Your task to perform on an android device: turn on javascript in the chrome app Image 0: 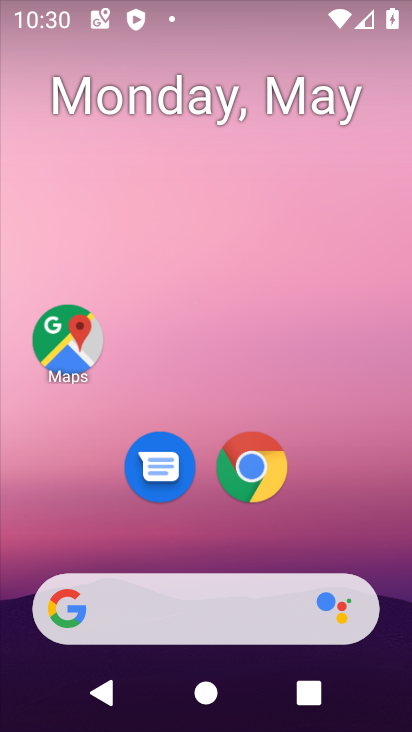
Step 0: click (246, 460)
Your task to perform on an android device: turn on javascript in the chrome app Image 1: 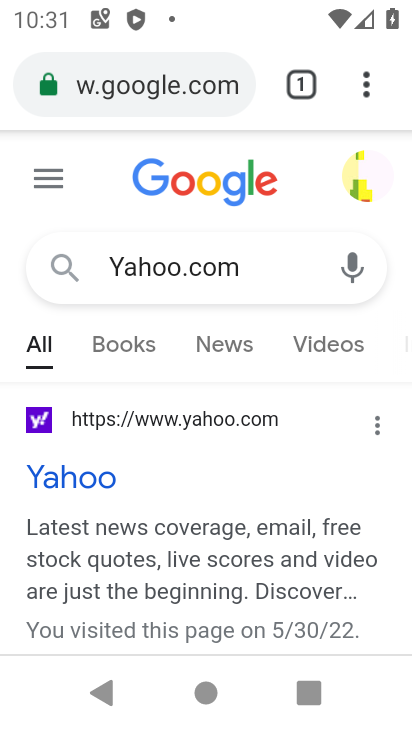
Step 1: click (365, 87)
Your task to perform on an android device: turn on javascript in the chrome app Image 2: 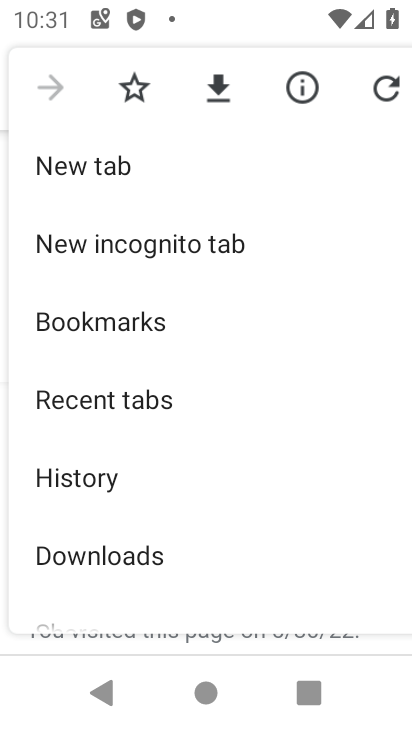
Step 2: drag from (272, 377) to (276, 185)
Your task to perform on an android device: turn on javascript in the chrome app Image 3: 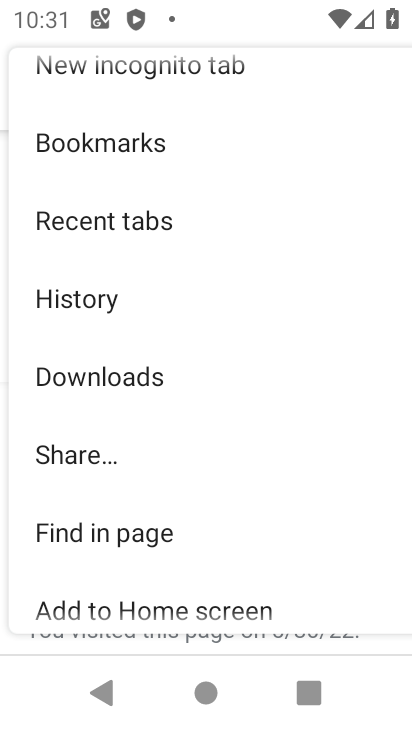
Step 3: drag from (282, 596) to (286, 213)
Your task to perform on an android device: turn on javascript in the chrome app Image 4: 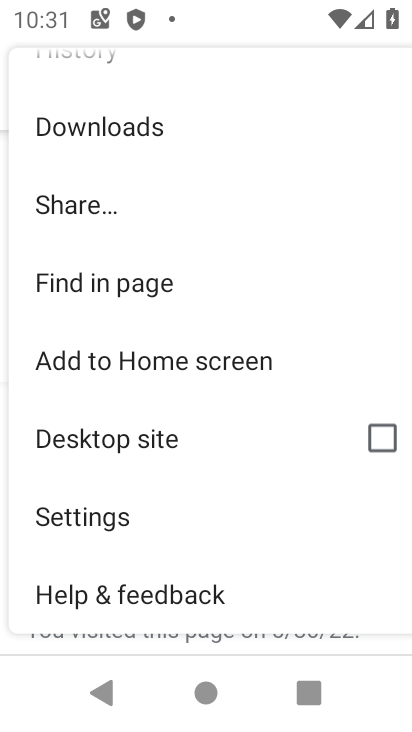
Step 4: drag from (303, 580) to (303, 251)
Your task to perform on an android device: turn on javascript in the chrome app Image 5: 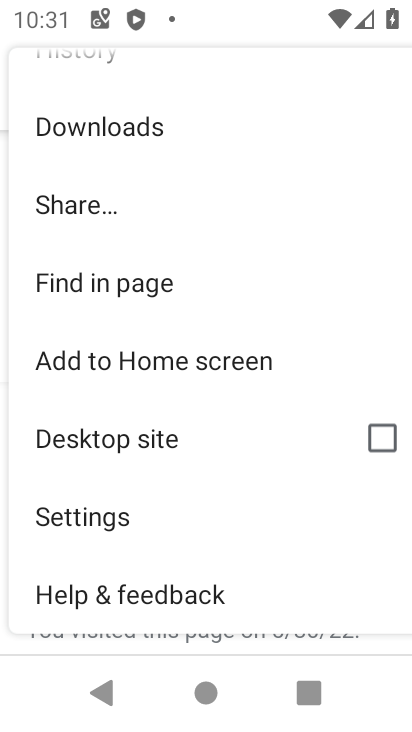
Step 5: click (285, 276)
Your task to perform on an android device: turn on javascript in the chrome app Image 6: 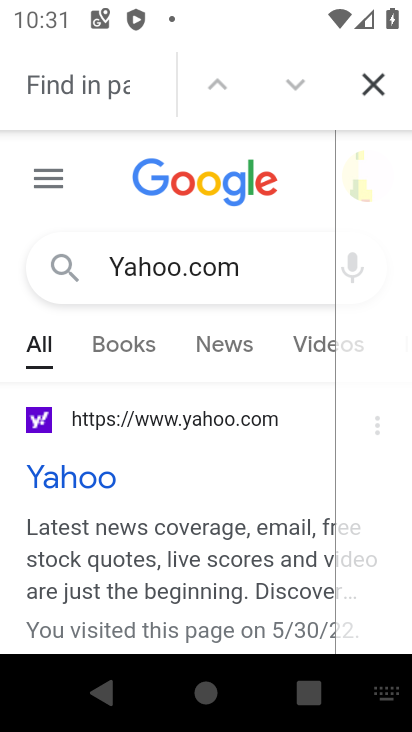
Step 6: click (56, 509)
Your task to perform on an android device: turn on javascript in the chrome app Image 7: 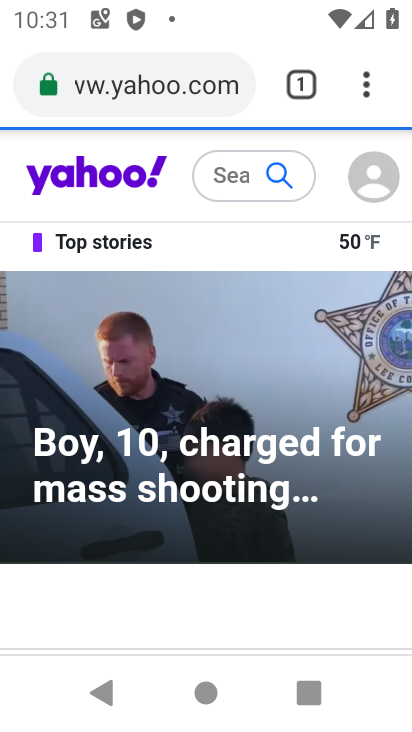
Step 7: click (361, 80)
Your task to perform on an android device: turn on javascript in the chrome app Image 8: 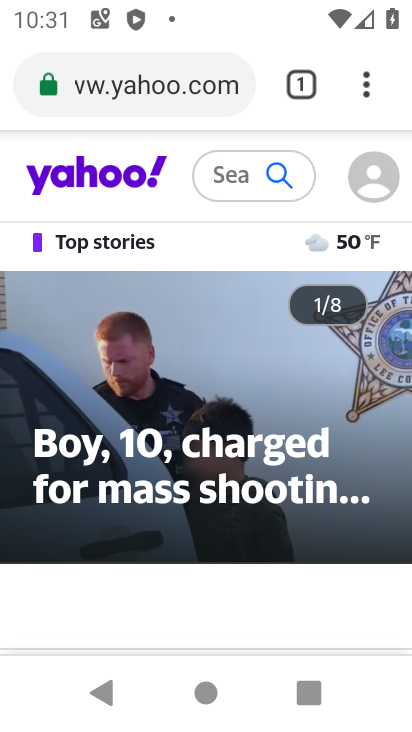
Step 8: click (367, 81)
Your task to perform on an android device: turn on javascript in the chrome app Image 9: 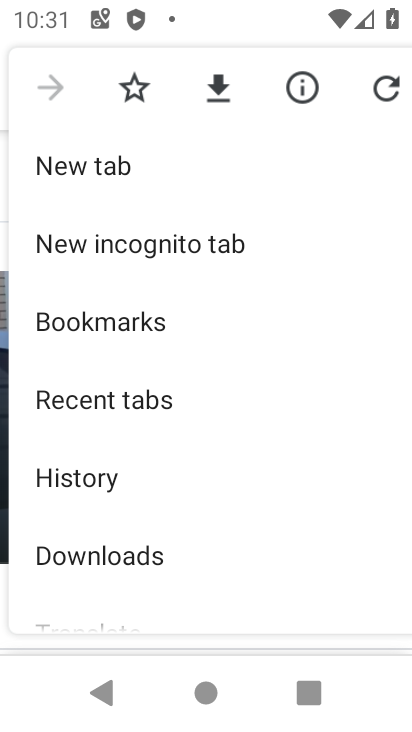
Step 9: drag from (303, 603) to (315, 221)
Your task to perform on an android device: turn on javascript in the chrome app Image 10: 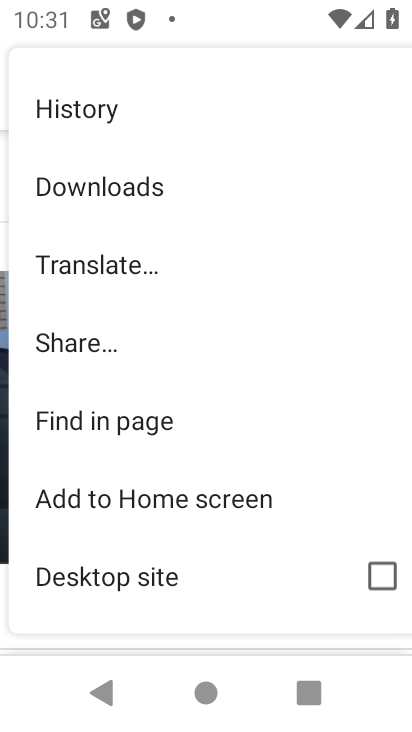
Step 10: drag from (296, 590) to (318, 190)
Your task to perform on an android device: turn on javascript in the chrome app Image 11: 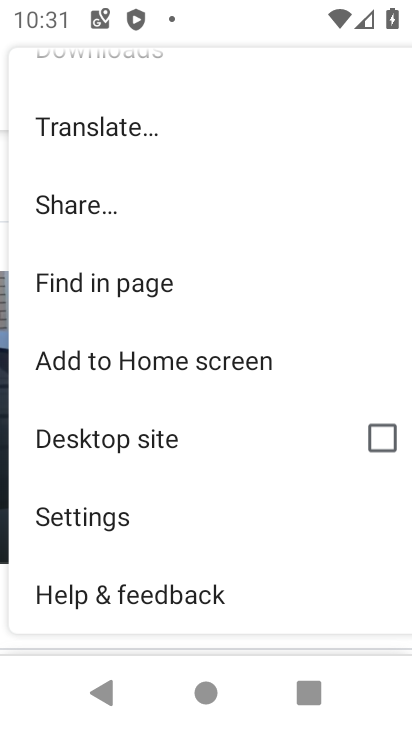
Step 11: click (83, 515)
Your task to perform on an android device: turn on javascript in the chrome app Image 12: 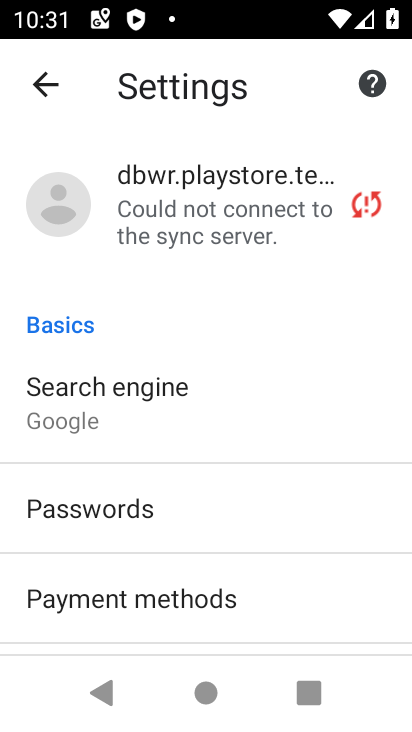
Step 12: drag from (276, 615) to (263, 262)
Your task to perform on an android device: turn on javascript in the chrome app Image 13: 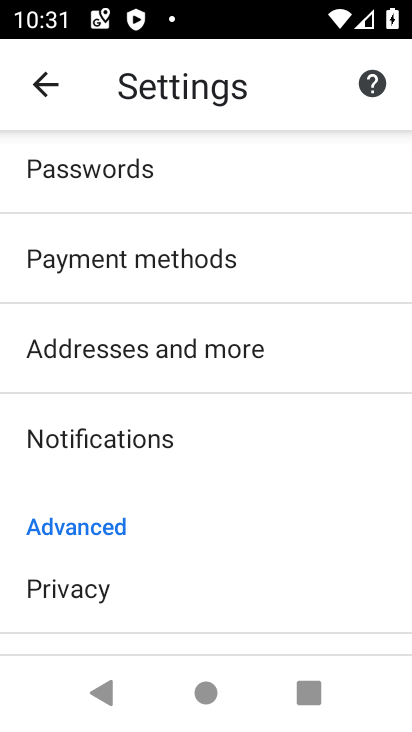
Step 13: click (299, 228)
Your task to perform on an android device: turn on javascript in the chrome app Image 14: 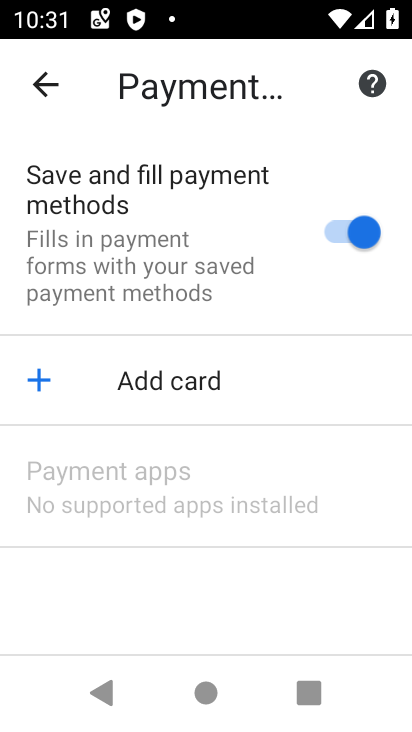
Step 14: drag from (277, 597) to (300, 262)
Your task to perform on an android device: turn on javascript in the chrome app Image 15: 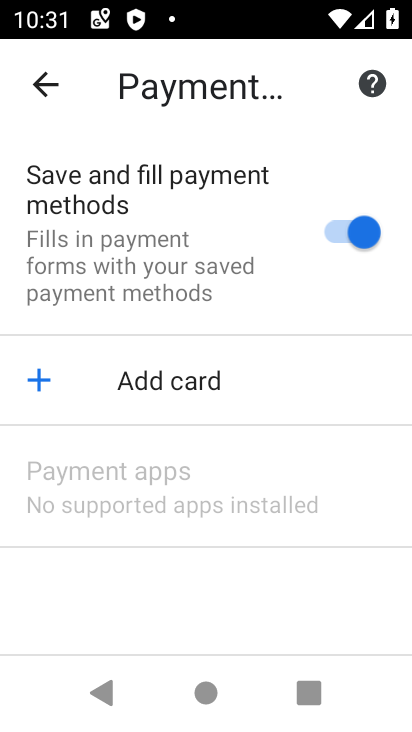
Step 15: click (34, 75)
Your task to perform on an android device: turn on javascript in the chrome app Image 16: 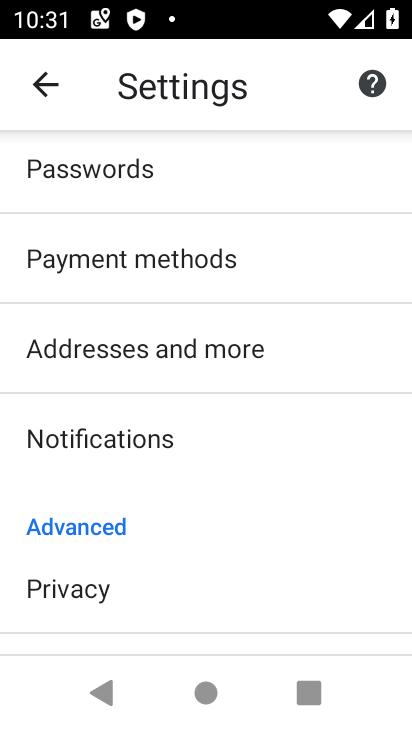
Step 16: click (307, 173)
Your task to perform on an android device: turn on javascript in the chrome app Image 17: 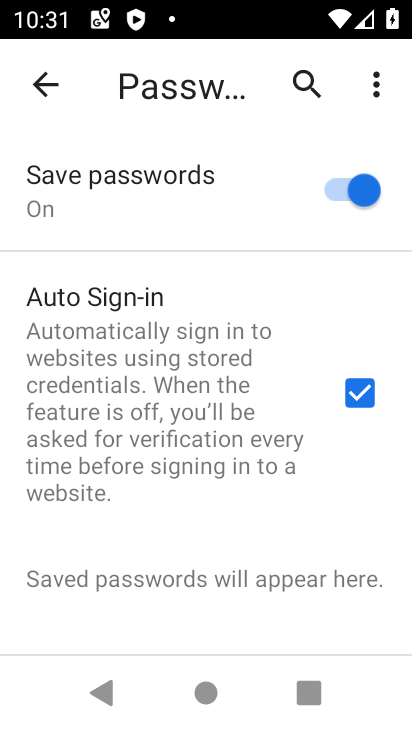
Step 17: click (48, 85)
Your task to perform on an android device: turn on javascript in the chrome app Image 18: 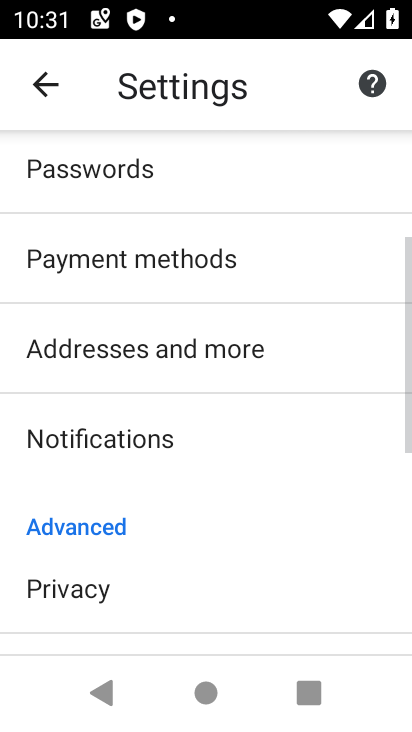
Step 18: drag from (284, 593) to (282, 193)
Your task to perform on an android device: turn on javascript in the chrome app Image 19: 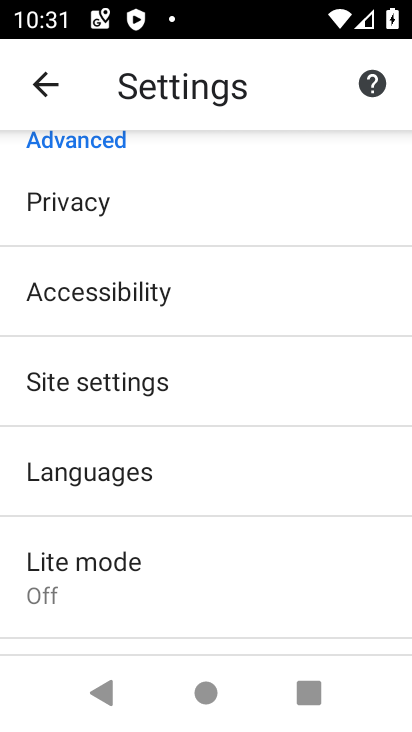
Step 19: drag from (267, 570) to (295, 193)
Your task to perform on an android device: turn on javascript in the chrome app Image 20: 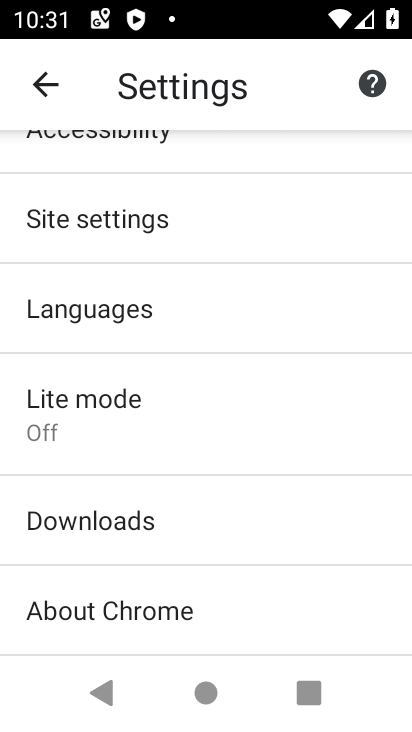
Step 20: drag from (261, 615) to (287, 317)
Your task to perform on an android device: turn on javascript in the chrome app Image 21: 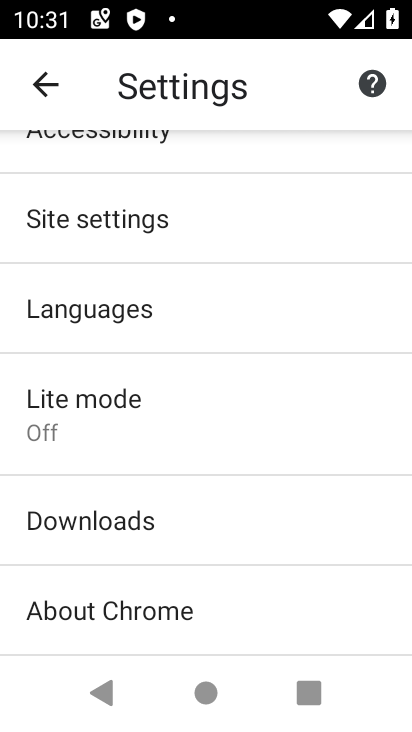
Step 21: click (103, 217)
Your task to perform on an android device: turn on javascript in the chrome app Image 22: 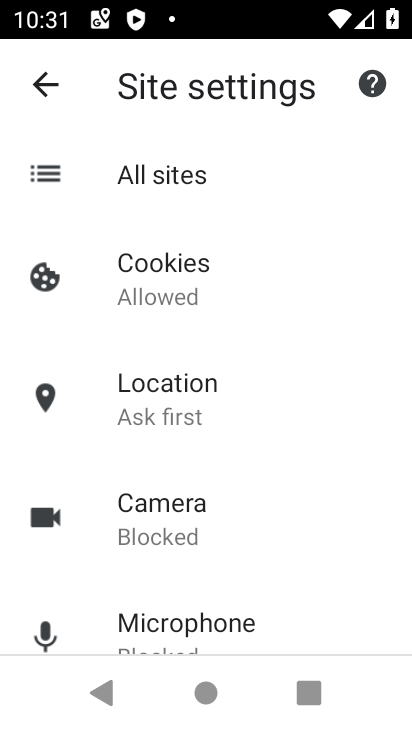
Step 22: drag from (271, 617) to (337, 166)
Your task to perform on an android device: turn on javascript in the chrome app Image 23: 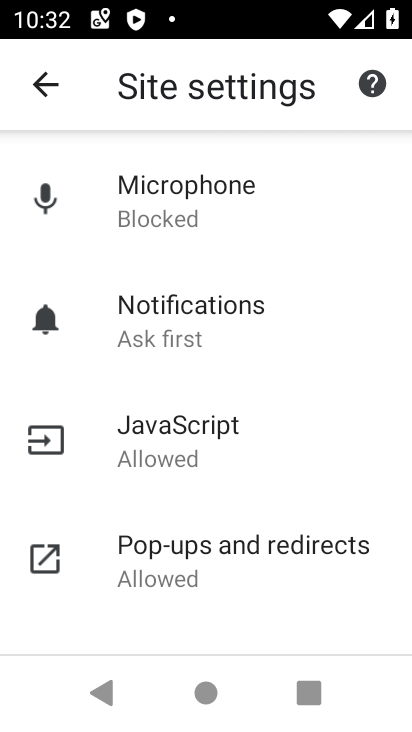
Step 23: click (145, 442)
Your task to perform on an android device: turn on javascript in the chrome app Image 24: 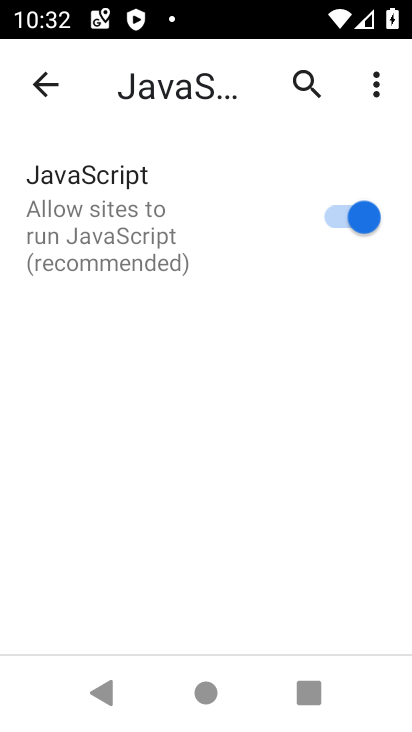
Step 24: task complete